Your task to perform on an android device: check the backup settings in the google photos Image 0: 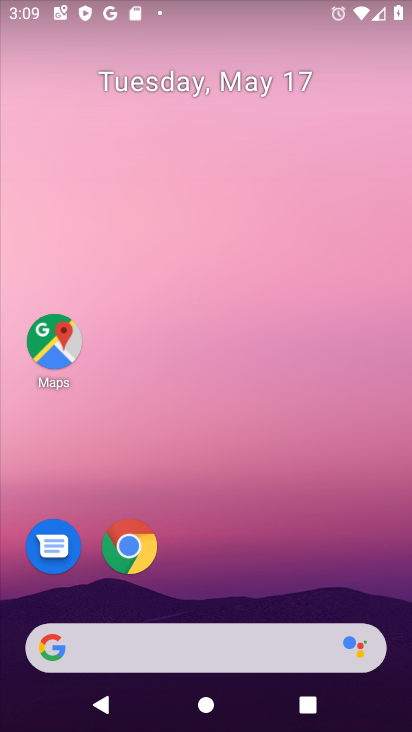
Step 0: drag from (378, 616) to (316, 278)
Your task to perform on an android device: check the backup settings in the google photos Image 1: 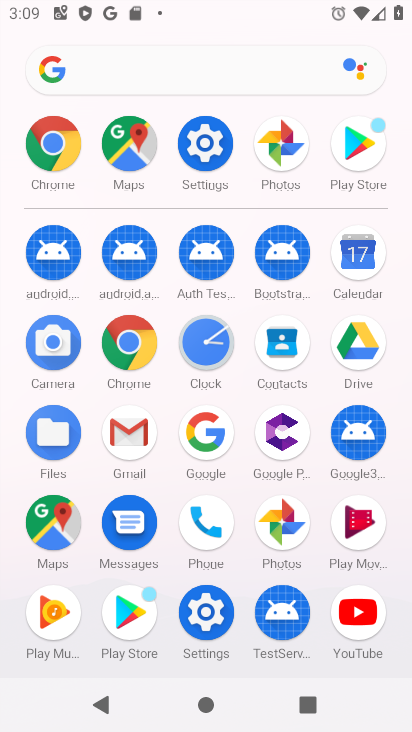
Step 1: click (283, 519)
Your task to perform on an android device: check the backup settings in the google photos Image 2: 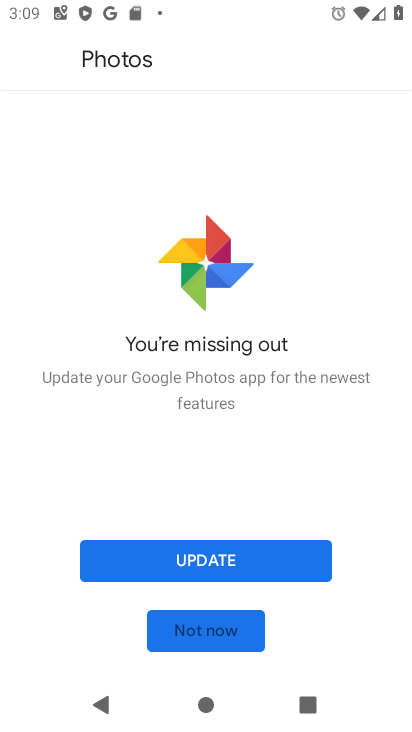
Step 2: click (217, 550)
Your task to perform on an android device: check the backup settings in the google photos Image 3: 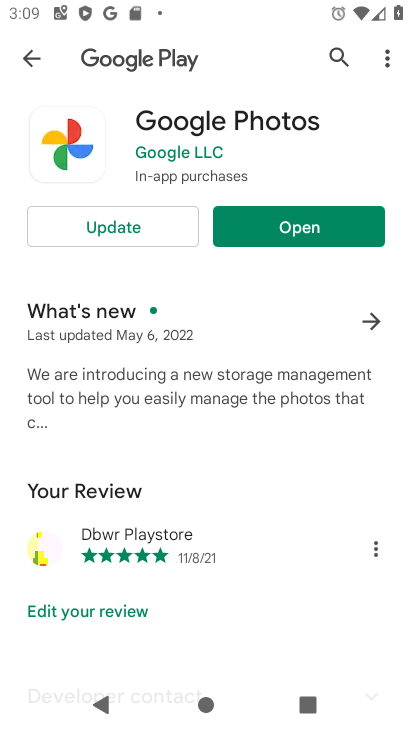
Step 3: click (92, 240)
Your task to perform on an android device: check the backup settings in the google photos Image 4: 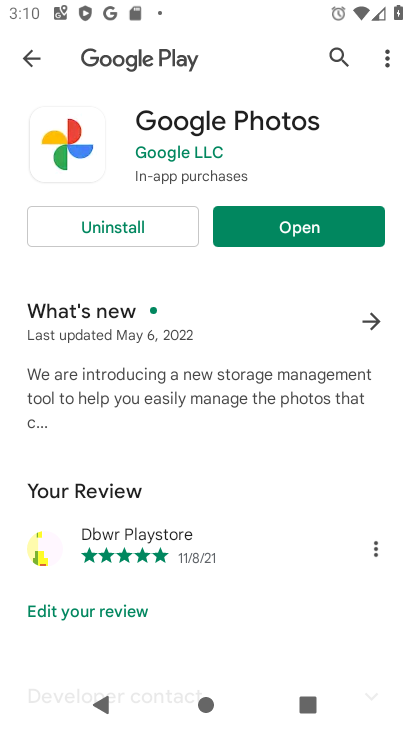
Step 4: click (278, 232)
Your task to perform on an android device: check the backup settings in the google photos Image 5: 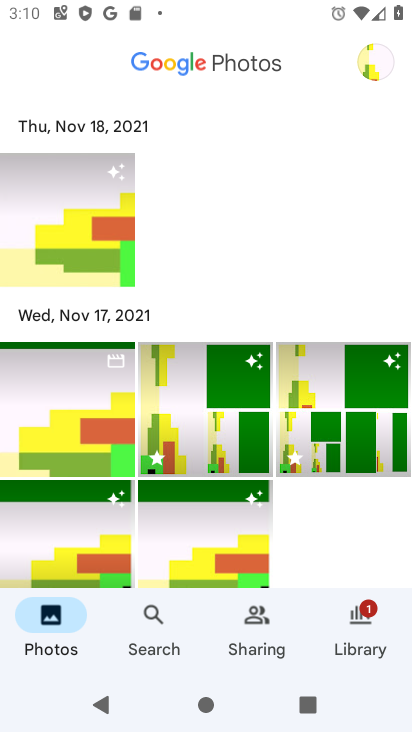
Step 5: task complete